Your task to perform on an android device: change notification settings in the gmail app Image 0: 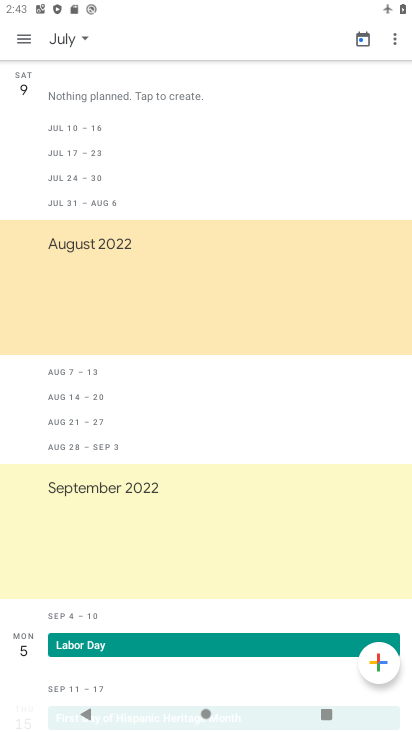
Step 0: press home button
Your task to perform on an android device: change notification settings in the gmail app Image 1: 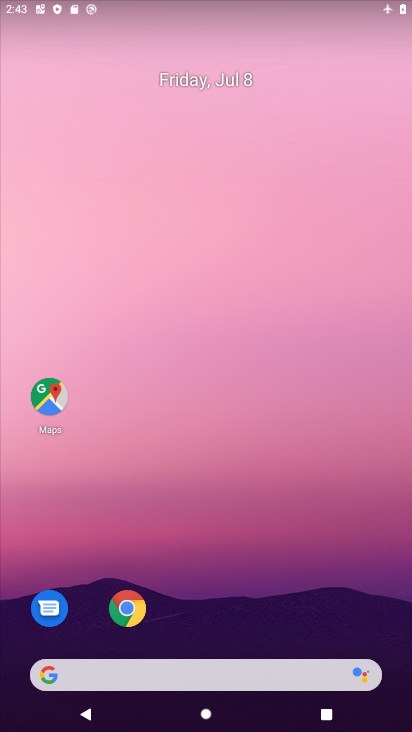
Step 1: drag from (199, 582) to (257, 17)
Your task to perform on an android device: change notification settings in the gmail app Image 2: 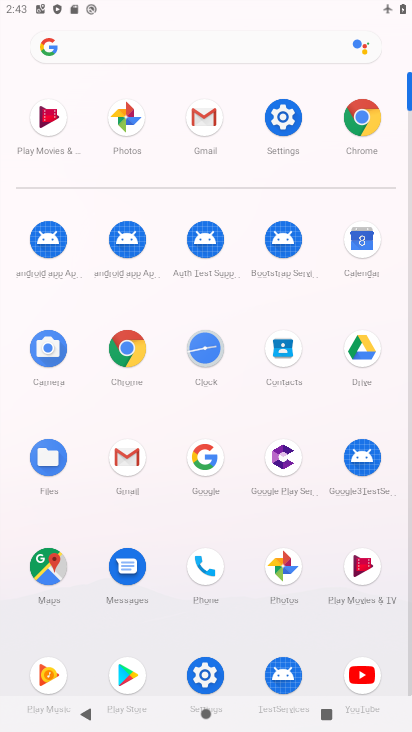
Step 2: click (126, 457)
Your task to perform on an android device: change notification settings in the gmail app Image 3: 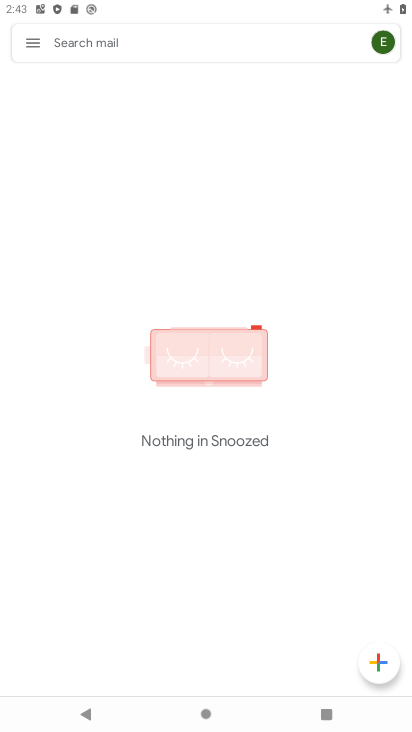
Step 3: click (27, 43)
Your task to perform on an android device: change notification settings in the gmail app Image 4: 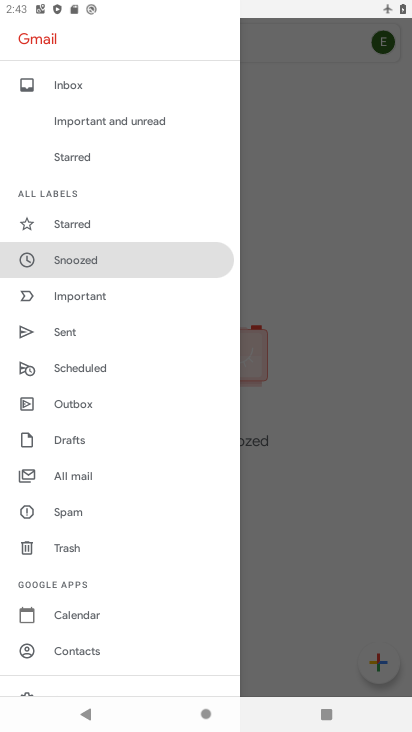
Step 4: drag from (99, 610) to (127, 230)
Your task to perform on an android device: change notification settings in the gmail app Image 5: 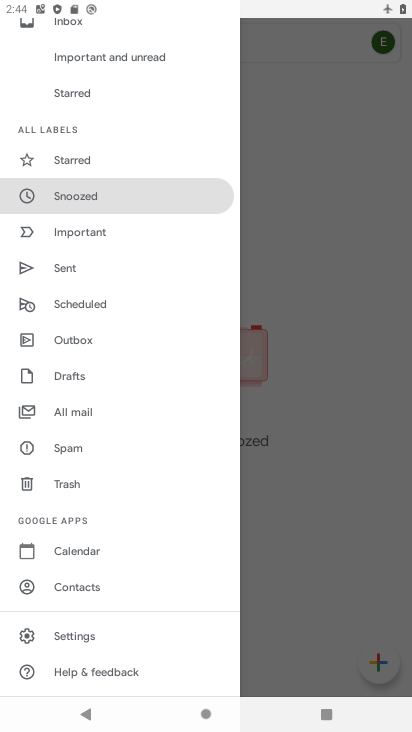
Step 5: click (81, 628)
Your task to perform on an android device: change notification settings in the gmail app Image 6: 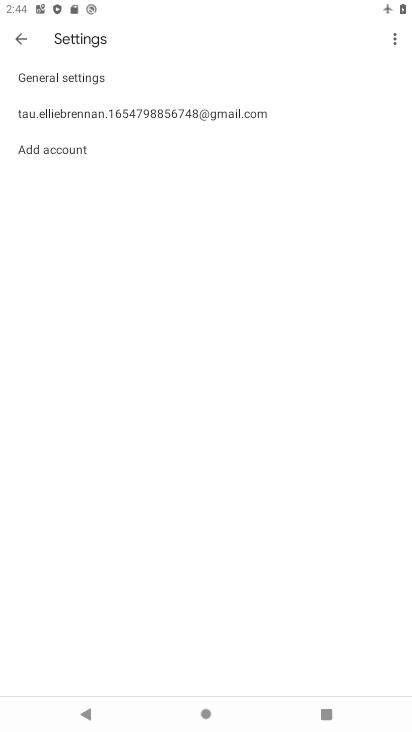
Step 6: click (132, 110)
Your task to perform on an android device: change notification settings in the gmail app Image 7: 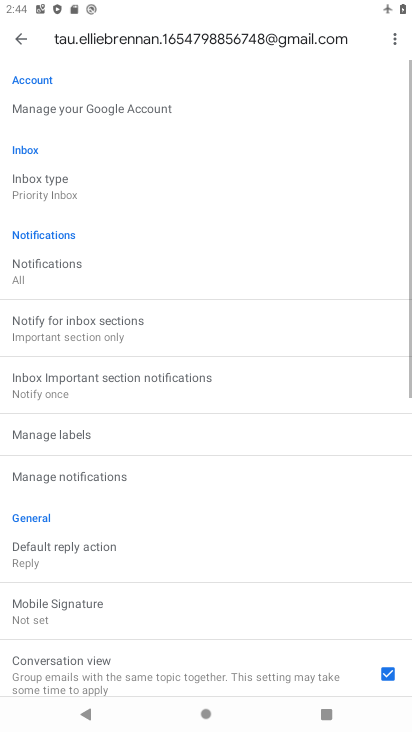
Step 7: click (89, 478)
Your task to perform on an android device: change notification settings in the gmail app Image 8: 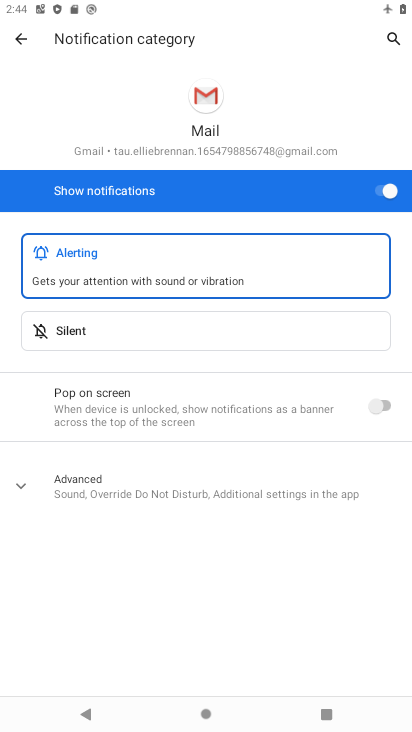
Step 8: click (385, 192)
Your task to perform on an android device: change notification settings in the gmail app Image 9: 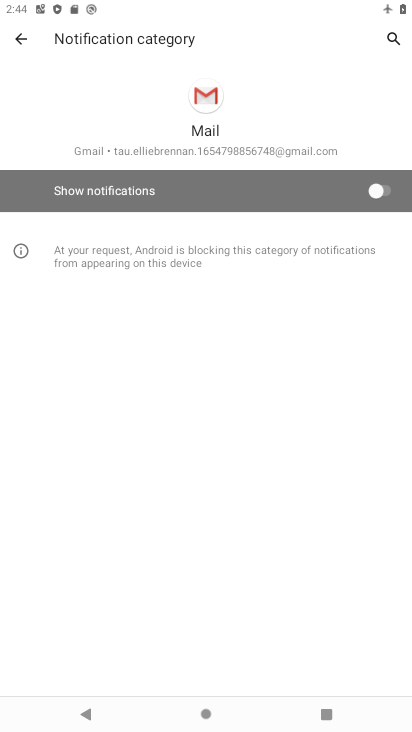
Step 9: task complete